Your task to perform on an android device: Go to location settings Image 0: 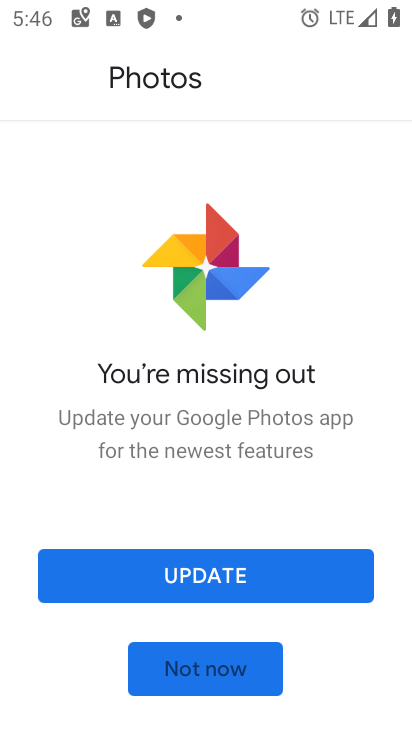
Step 0: press home button
Your task to perform on an android device: Go to location settings Image 1: 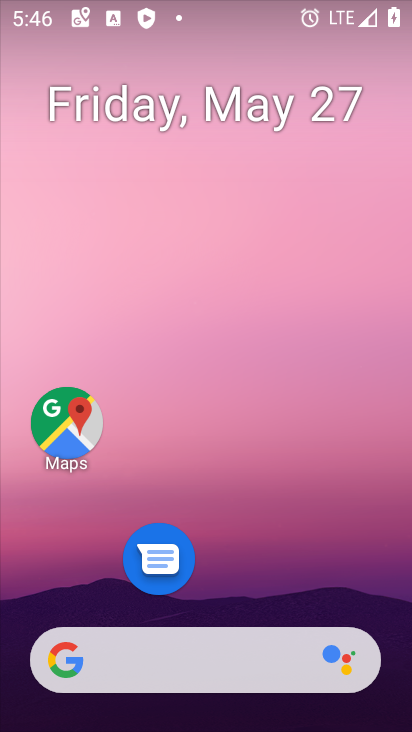
Step 1: drag from (347, 631) to (314, 94)
Your task to perform on an android device: Go to location settings Image 2: 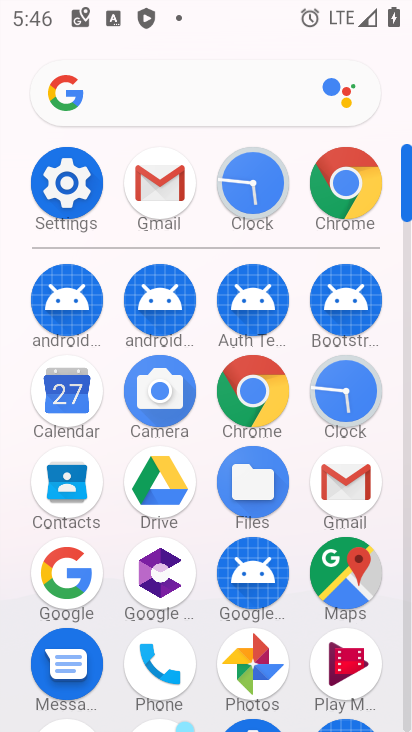
Step 2: click (63, 200)
Your task to perform on an android device: Go to location settings Image 3: 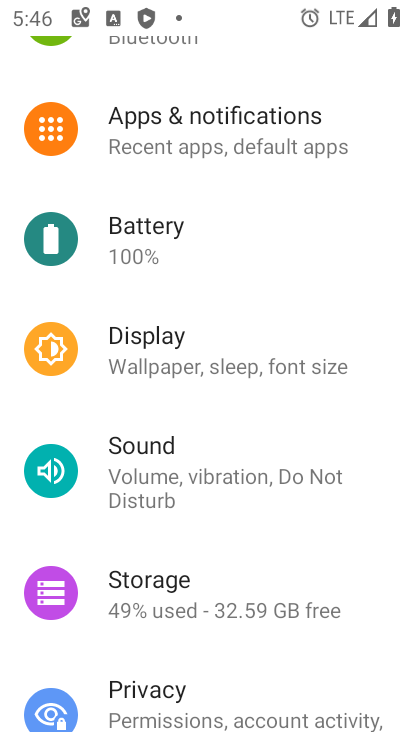
Step 3: drag from (261, 542) to (278, 290)
Your task to perform on an android device: Go to location settings Image 4: 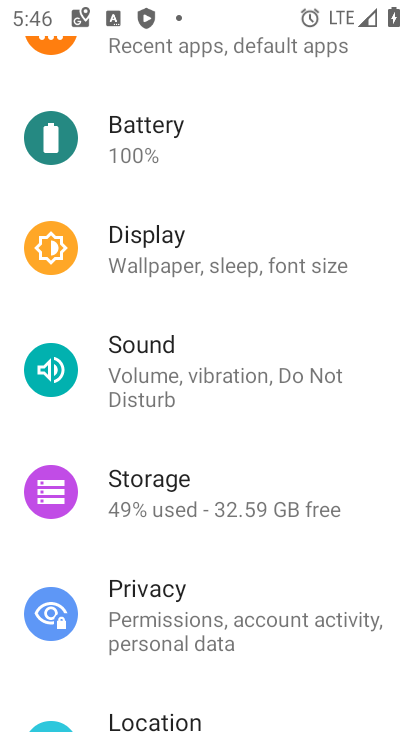
Step 4: drag from (315, 410) to (316, 202)
Your task to perform on an android device: Go to location settings Image 5: 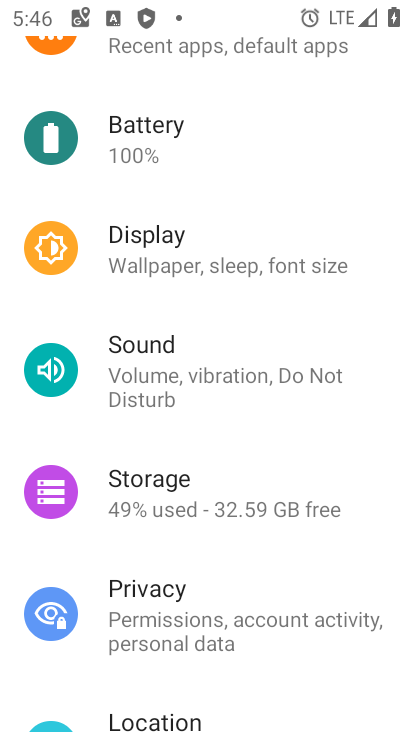
Step 5: click (226, 711)
Your task to perform on an android device: Go to location settings Image 6: 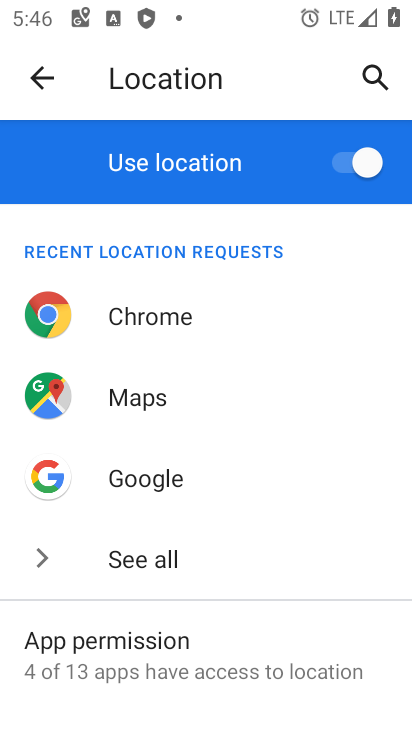
Step 6: task complete